Your task to perform on an android device: Turn on the flashlight Image 0: 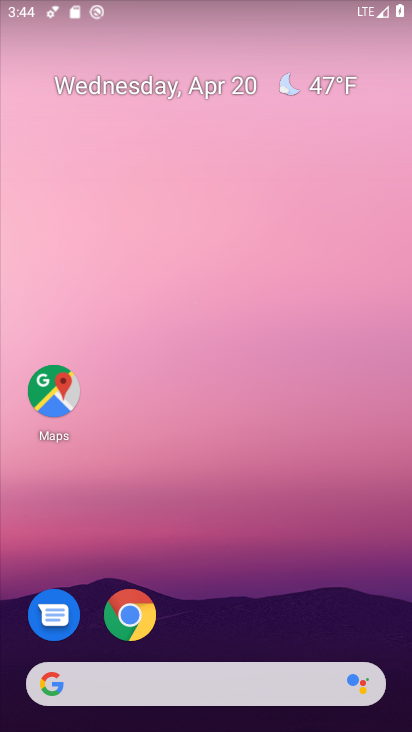
Step 0: drag from (237, 626) to (236, 196)
Your task to perform on an android device: Turn on the flashlight Image 1: 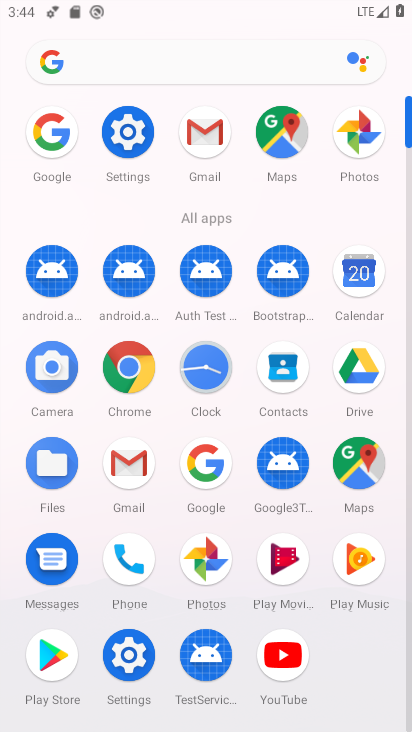
Step 1: click (134, 150)
Your task to perform on an android device: Turn on the flashlight Image 2: 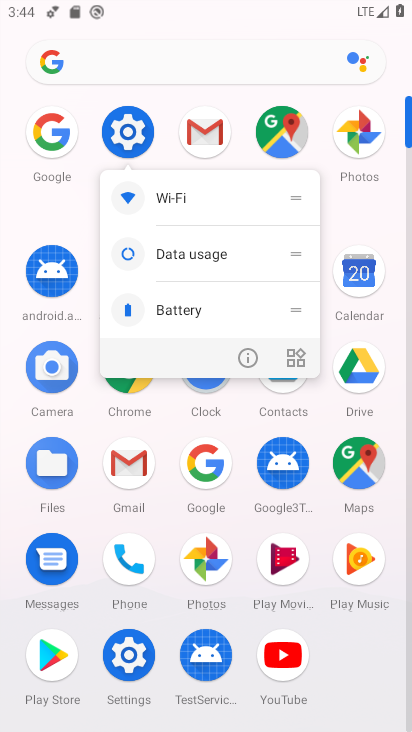
Step 2: click (130, 115)
Your task to perform on an android device: Turn on the flashlight Image 3: 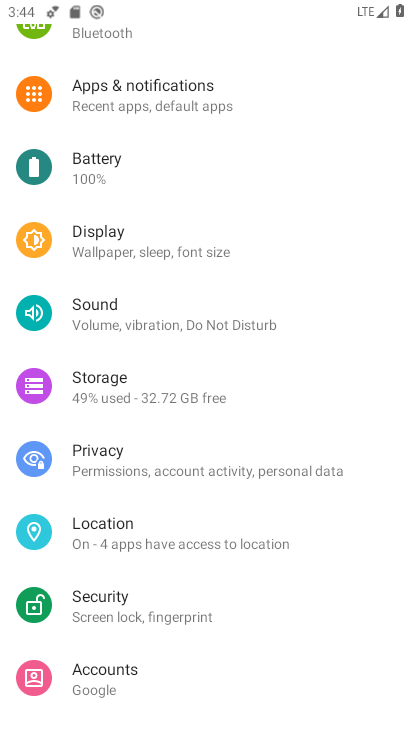
Step 3: task complete